Your task to perform on an android device: see creations saved in the google photos Image 0: 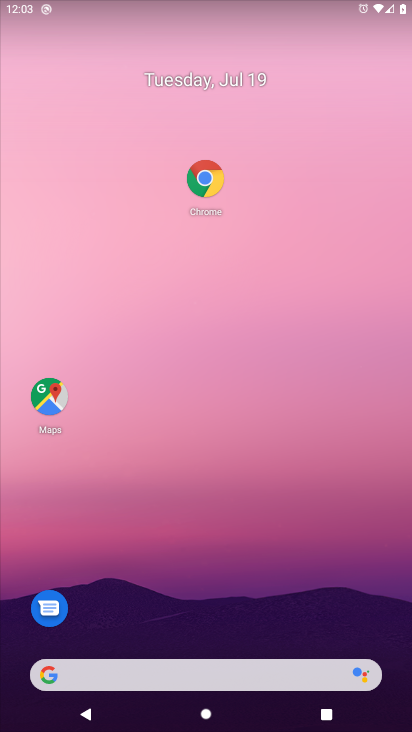
Step 0: drag from (63, 619) to (282, 14)
Your task to perform on an android device: see creations saved in the google photos Image 1: 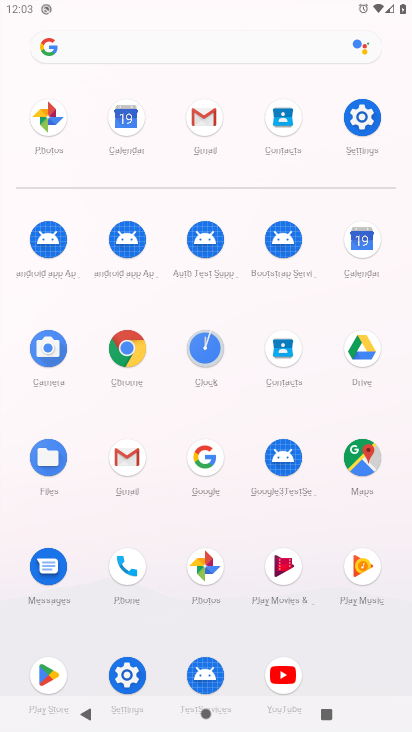
Step 1: click (194, 576)
Your task to perform on an android device: see creations saved in the google photos Image 2: 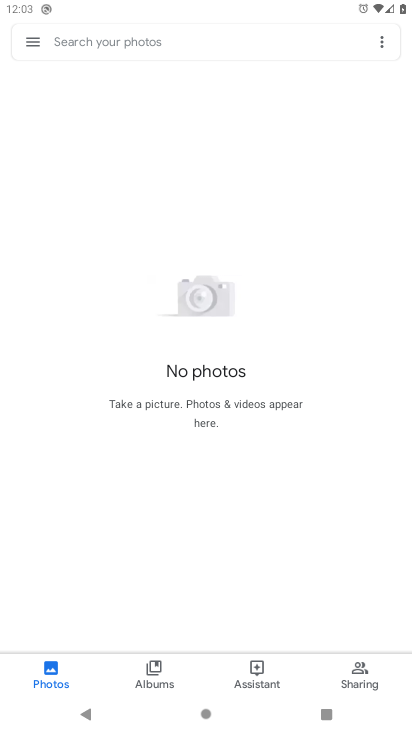
Step 2: click (26, 36)
Your task to perform on an android device: see creations saved in the google photos Image 3: 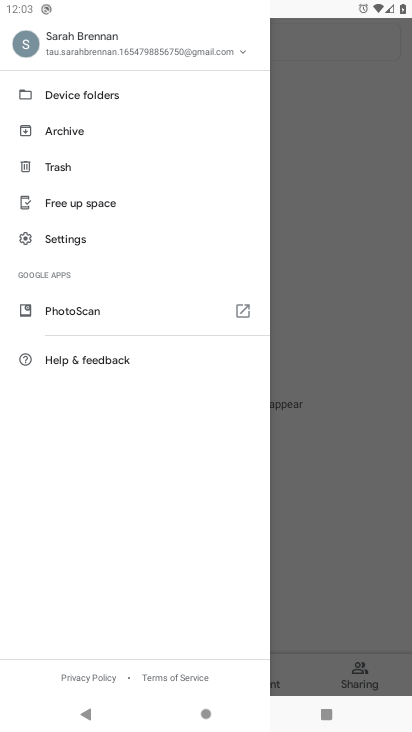
Step 3: click (363, 236)
Your task to perform on an android device: see creations saved in the google photos Image 4: 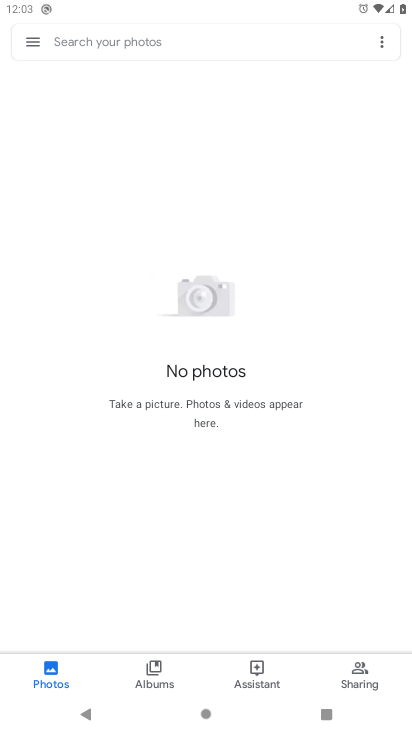
Step 4: click (390, 43)
Your task to perform on an android device: see creations saved in the google photos Image 5: 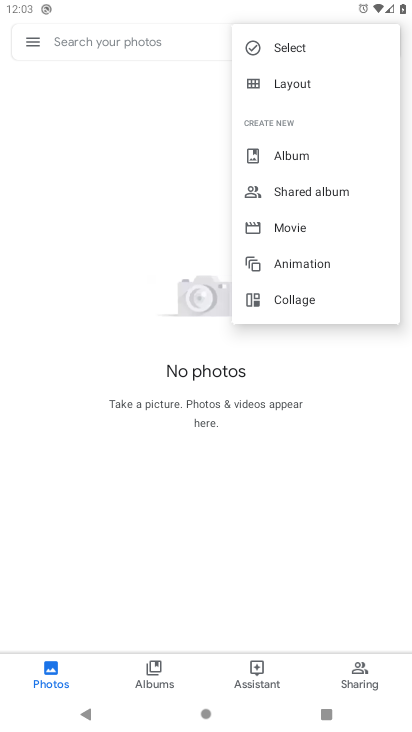
Step 5: click (318, 423)
Your task to perform on an android device: see creations saved in the google photos Image 6: 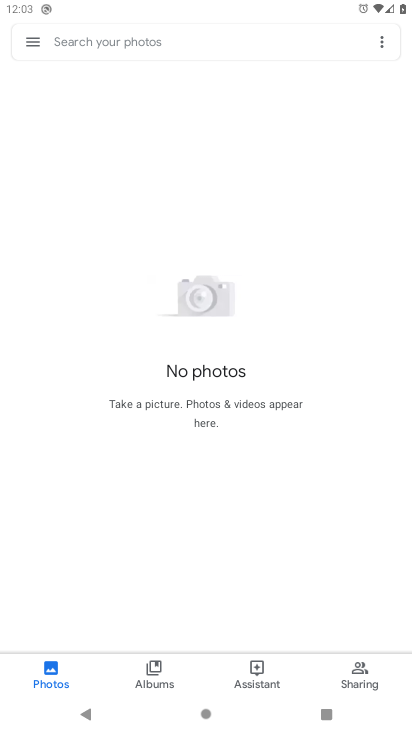
Step 6: task complete